Your task to perform on an android device: turn off sleep mode Image 0: 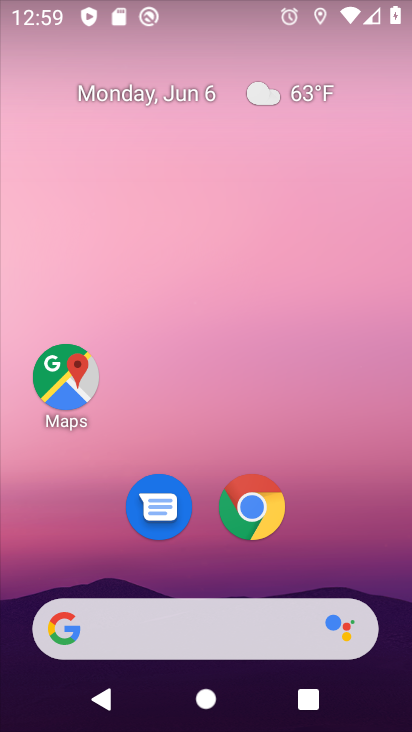
Step 0: drag from (328, 520) to (323, 25)
Your task to perform on an android device: turn off sleep mode Image 1: 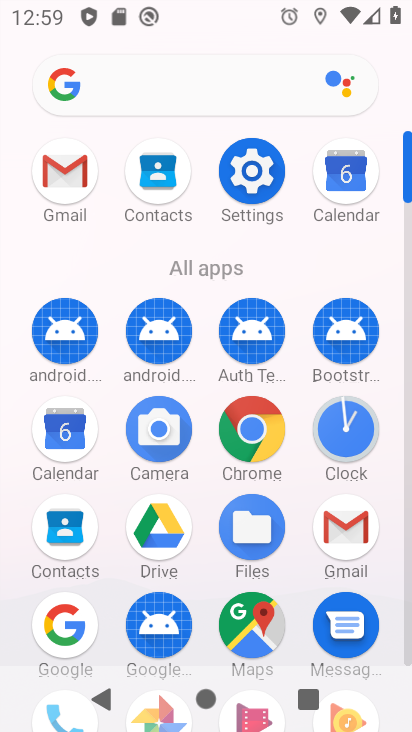
Step 1: click (264, 170)
Your task to perform on an android device: turn off sleep mode Image 2: 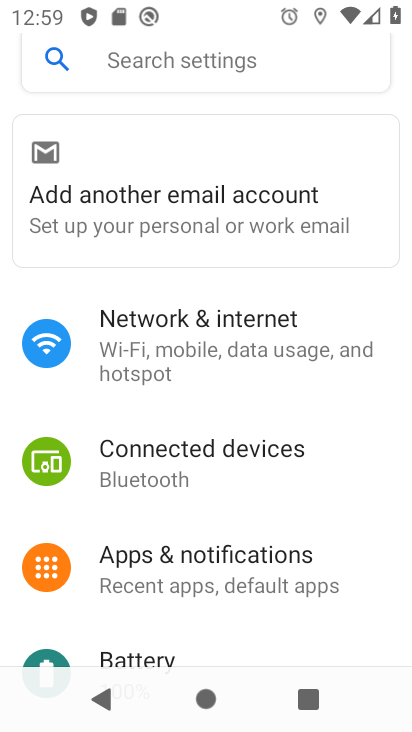
Step 2: drag from (209, 548) to (189, 161)
Your task to perform on an android device: turn off sleep mode Image 3: 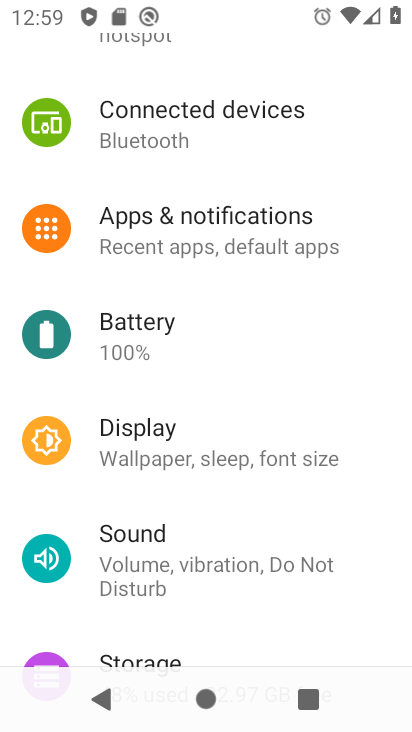
Step 3: click (226, 440)
Your task to perform on an android device: turn off sleep mode Image 4: 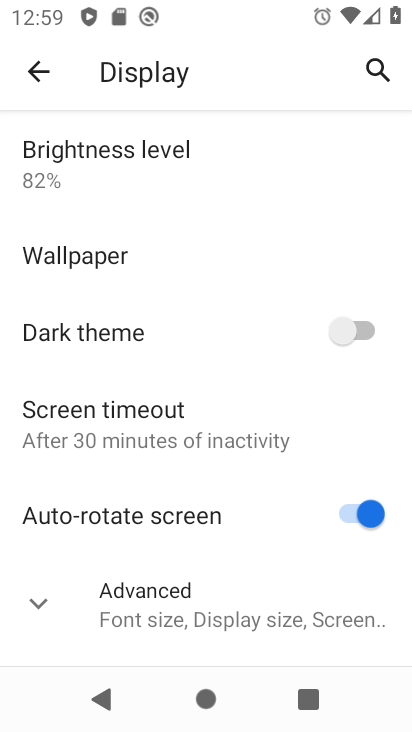
Step 4: drag from (226, 441) to (216, 191)
Your task to perform on an android device: turn off sleep mode Image 5: 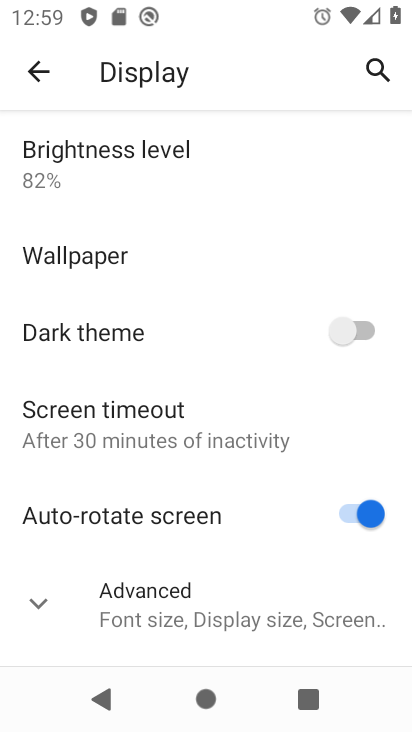
Step 5: click (39, 599)
Your task to perform on an android device: turn off sleep mode Image 6: 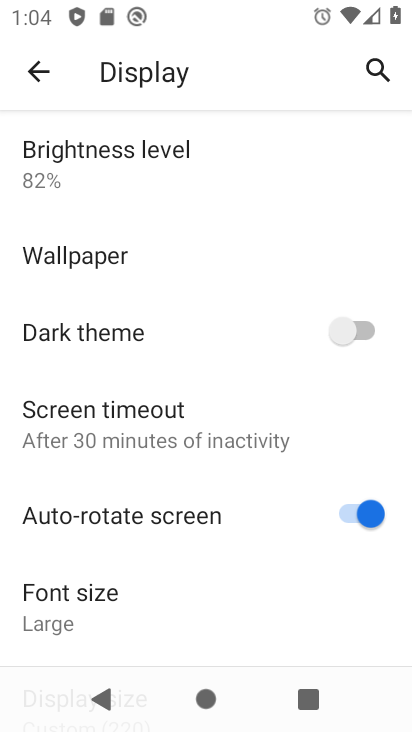
Step 6: task complete